Your task to perform on an android device: delete a single message in the gmail app Image 0: 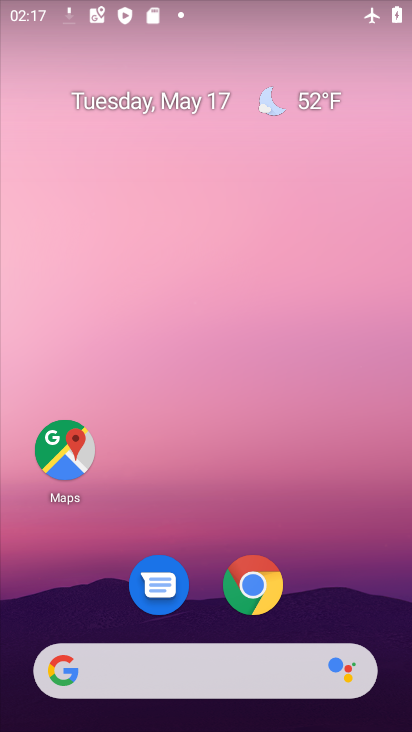
Step 0: drag from (262, 506) to (214, 72)
Your task to perform on an android device: delete a single message in the gmail app Image 1: 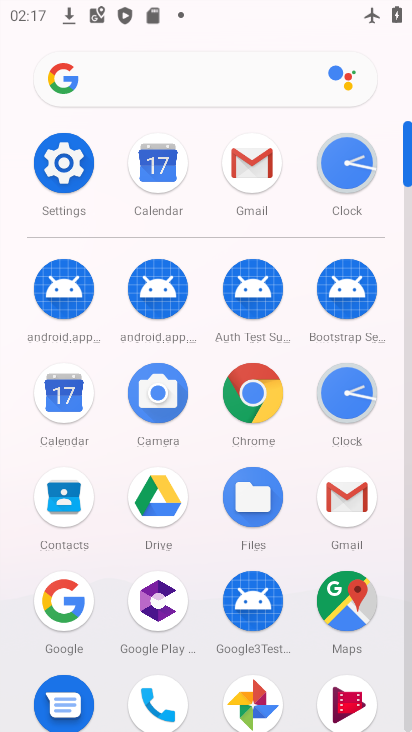
Step 1: click (251, 162)
Your task to perform on an android device: delete a single message in the gmail app Image 2: 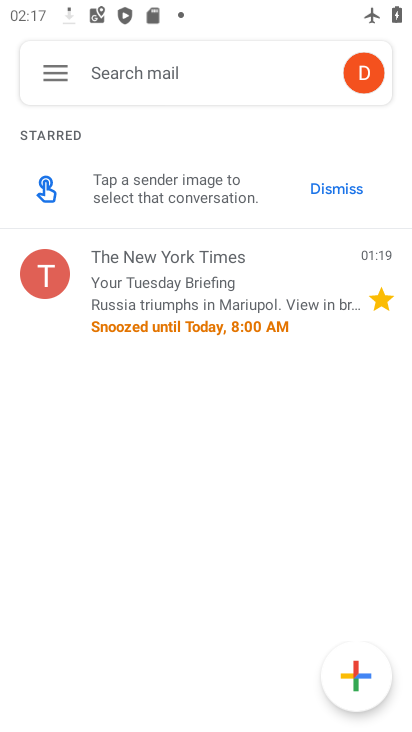
Step 2: click (218, 274)
Your task to perform on an android device: delete a single message in the gmail app Image 3: 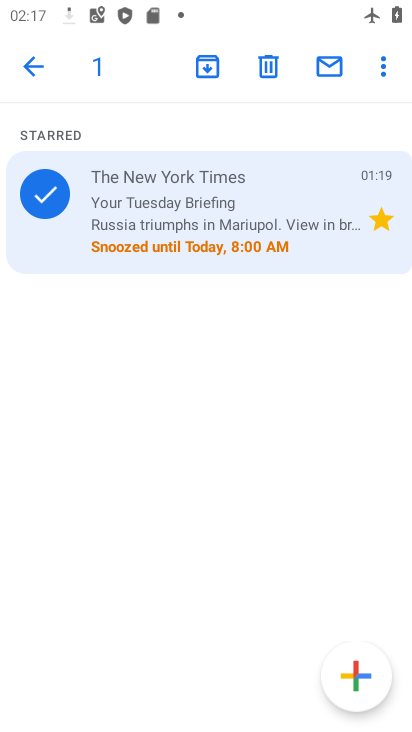
Step 3: click (267, 56)
Your task to perform on an android device: delete a single message in the gmail app Image 4: 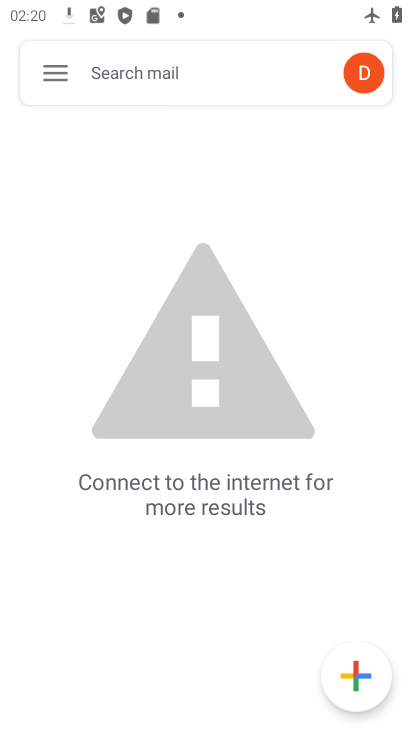
Step 4: task complete